Your task to perform on an android device: Open Google Chrome and open the bookmarks view Image 0: 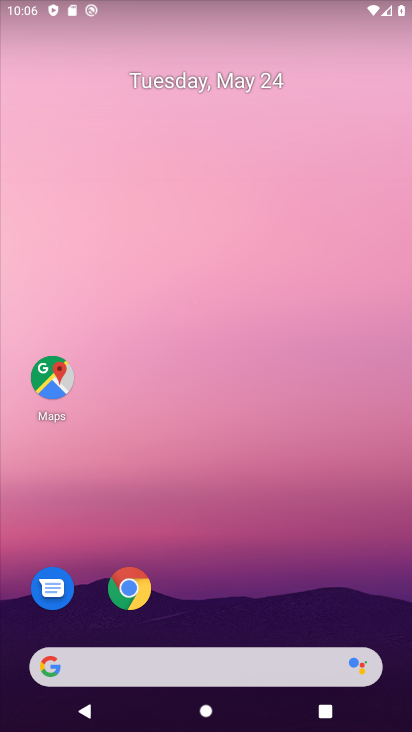
Step 0: drag from (244, 593) to (234, 39)
Your task to perform on an android device: Open Google Chrome and open the bookmarks view Image 1: 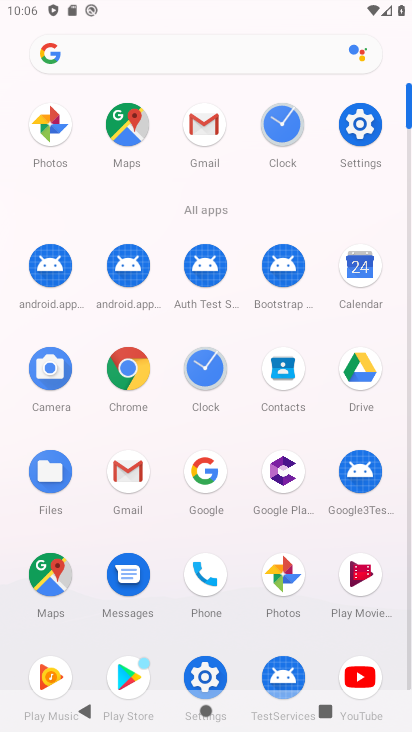
Step 1: click (142, 369)
Your task to perform on an android device: Open Google Chrome and open the bookmarks view Image 2: 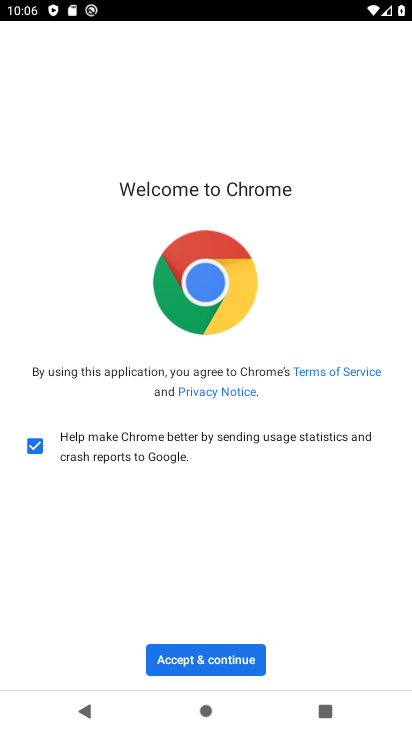
Step 2: click (233, 659)
Your task to perform on an android device: Open Google Chrome and open the bookmarks view Image 3: 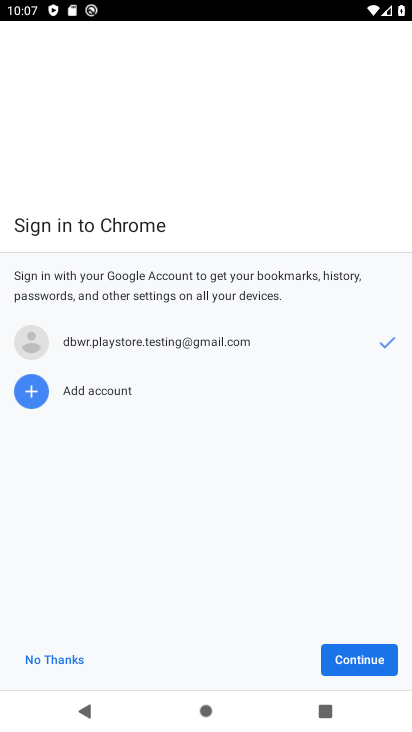
Step 3: click (347, 656)
Your task to perform on an android device: Open Google Chrome and open the bookmarks view Image 4: 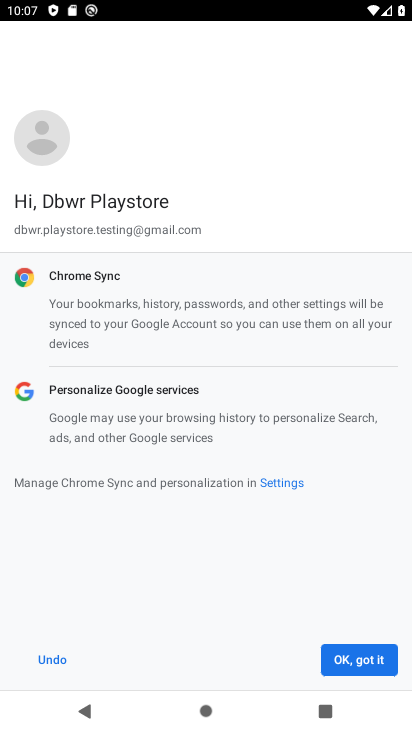
Step 4: click (366, 650)
Your task to perform on an android device: Open Google Chrome and open the bookmarks view Image 5: 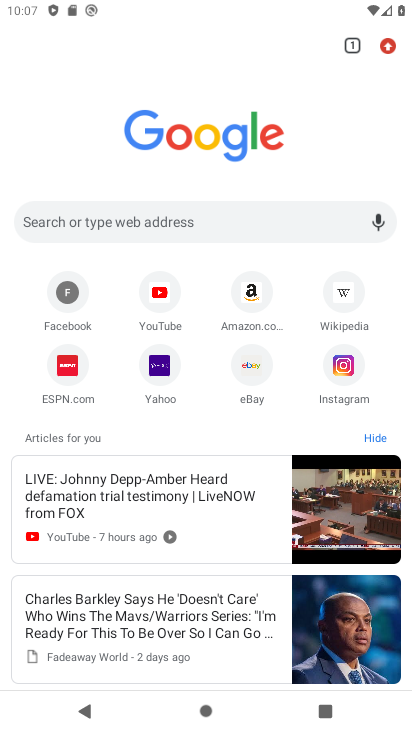
Step 5: click (389, 40)
Your task to perform on an android device: Open Google Chrome and open the bookmarks view Image 6: 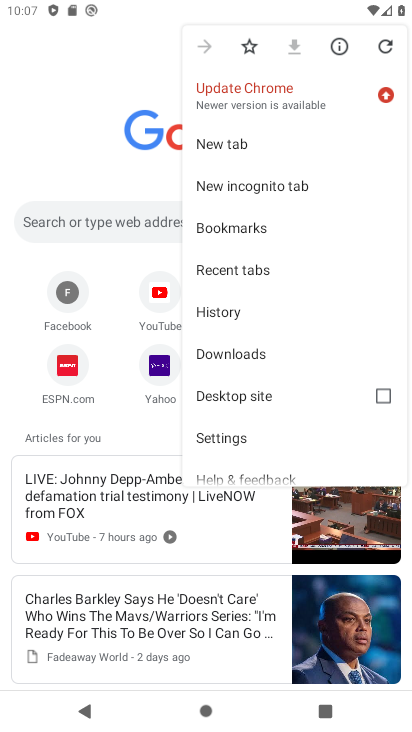
Step 6: click (262, 229)
Your task to perform on an android device: Open Google Chrome and open the bookmarks view Image 7: 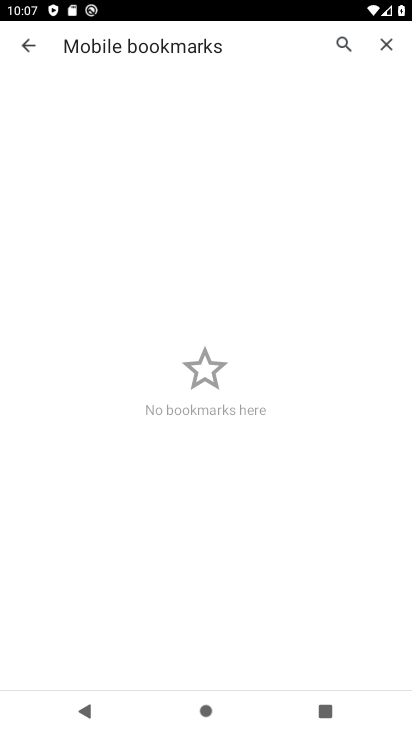
Step 7: task complete